Your task to perform on an android device: choose inbox layout in the gmail app Image 0: 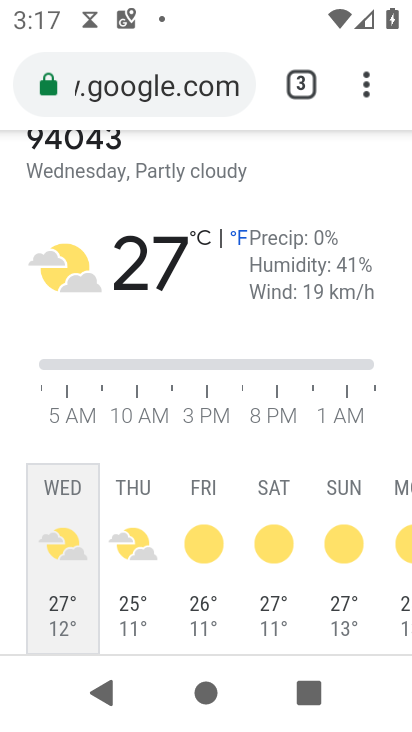
Step 0: press home button
Your task to perform on an android device: choose inbox layout in the gmail app Image 1: 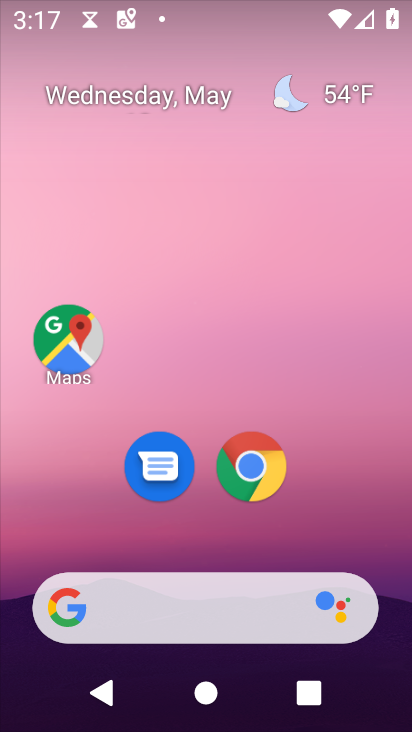
Step 1: drag from (362, 504) to (250, 53)
Your task to perform on an android device: choose inbox layout in the gmail app Image 2: 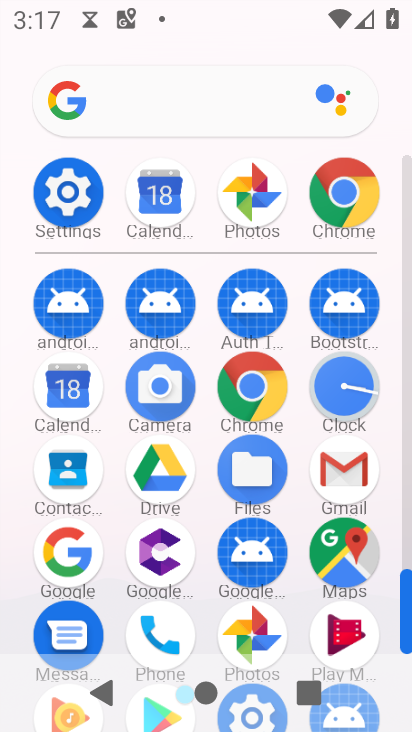
Step 2: click (364, 488)
Your task to perform on an android device: choose inbox layout in the gmail app Image 3: 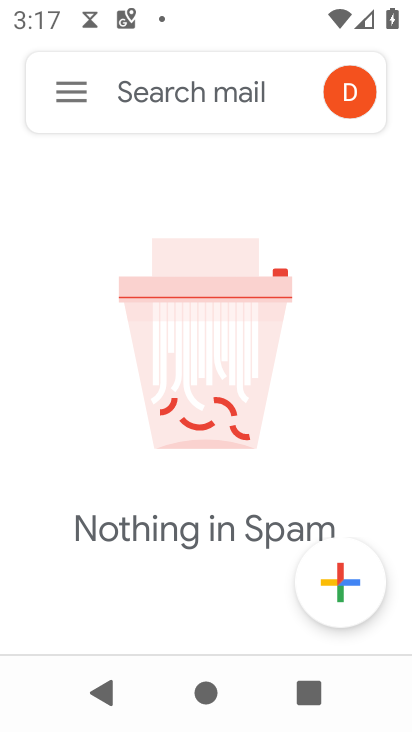
Step 3: click (82, 96)
Your task to perform on an android device: choose inbox layout in the gmail app Image 4: 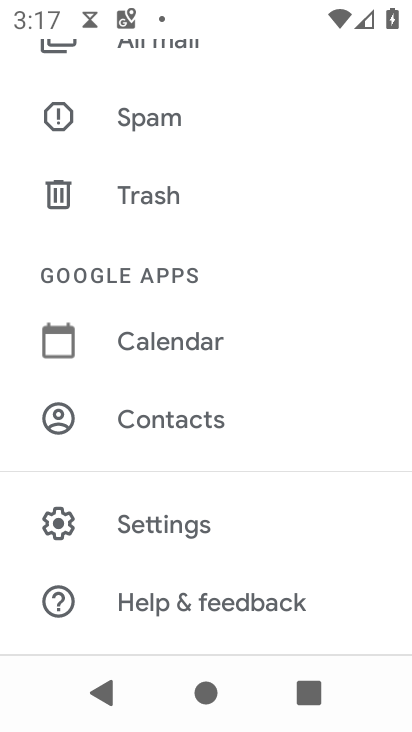
Step 4: click (184, 538)
Your task to perform on an android device: choose inbox layout in the gmail app Image 5: 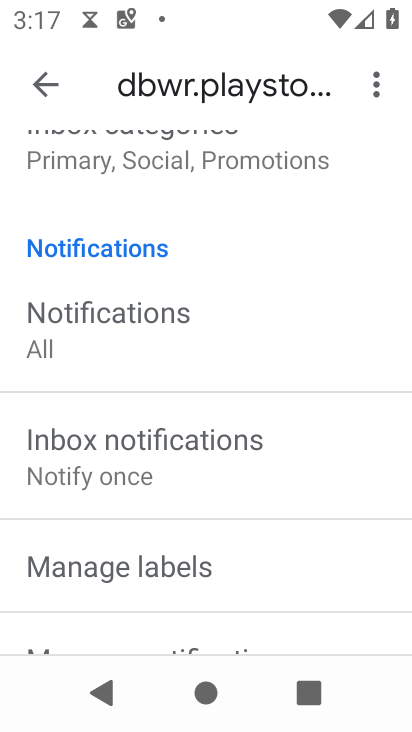
Step 5: click (244, 701)
Your task to perform on an android device: choose inbox layout in the gmail app Image 6: 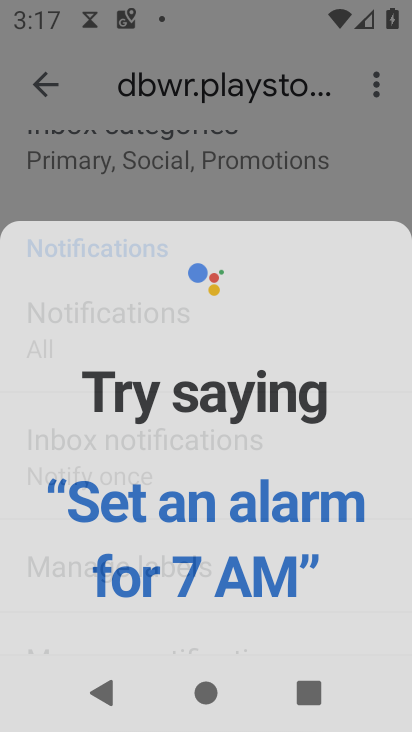
Step 6: drag from (278, 192) to (267, 492)
Your task to perform on an android device: choose inbox layout in the gmail app Image 7: 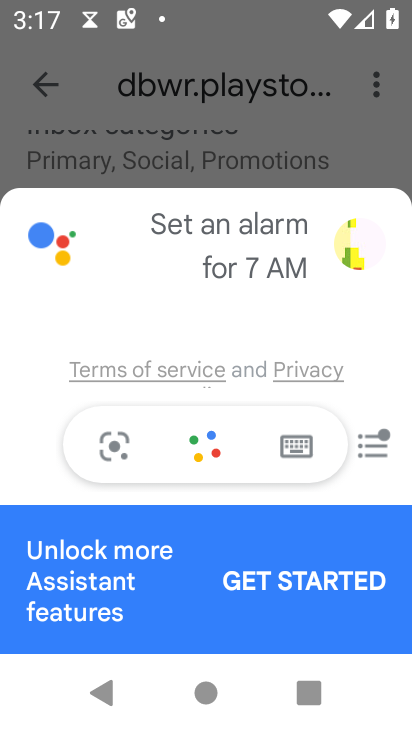
Step 7: press back button
Your task to perform on an android device: choose inbox layout in the gmail app Image 8: 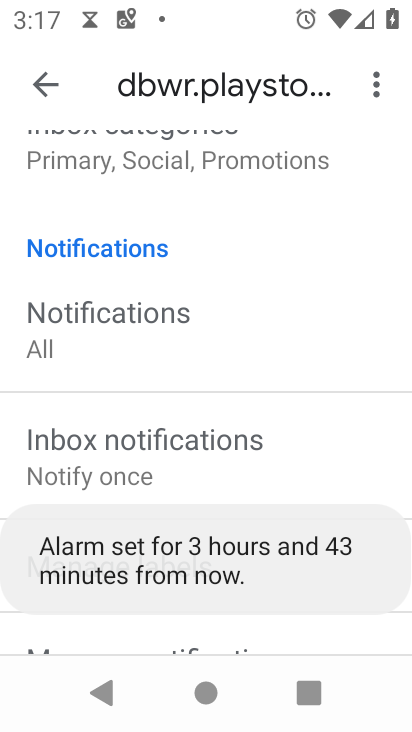
Step 8: drag from (241, 163) to (250, 490)
Your task to perform on an android device: choose inbox layout in the gmail app Image 9: 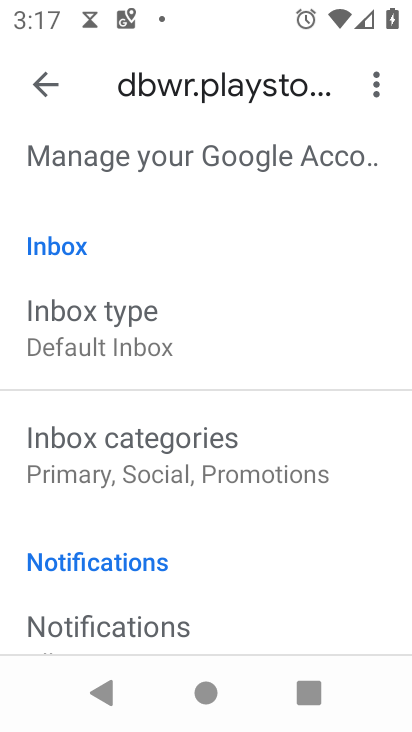
Step 9: click (248, 332)
Your task to perform on an android device: choose inbox layout in the gmail app Image 10: 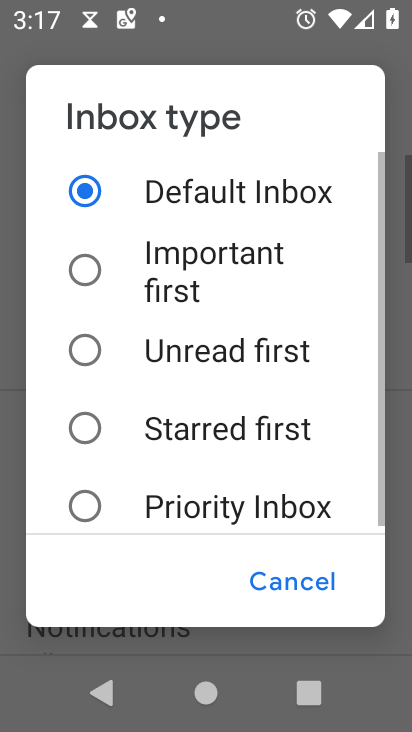
Step 10: click (248, 332)
Your task to perform on an android device: choose inbox layout in the gmail app Image 11: 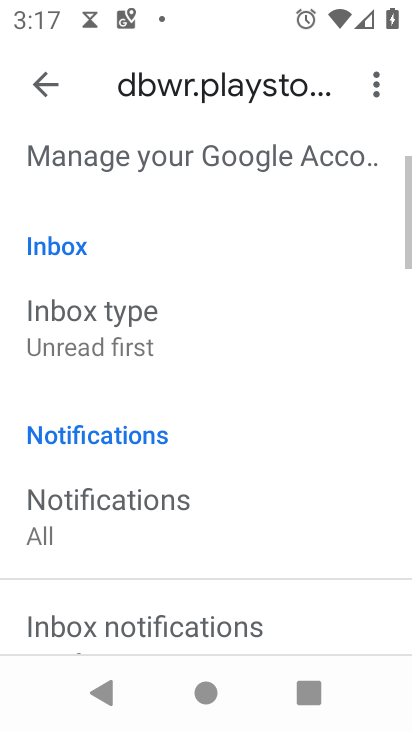
Step 11: task complete